Your task to perform on an android device: toggle priority inbox in the gmail app Image 0: 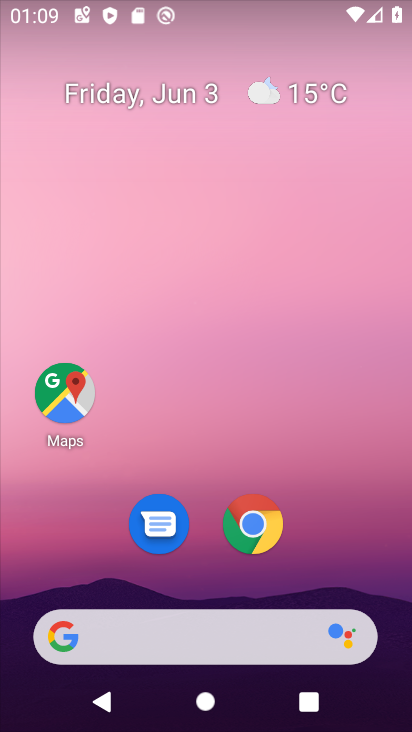
Step 0: drag from (334, 541) to (316, 25)
Your task to perform on an android device: toggle priority inbox in the gmail app Image 1: 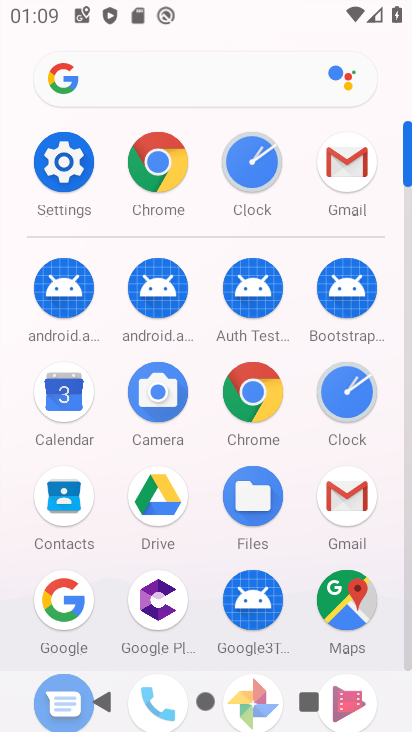
Step 1: click (341, 171)
Your task to perform on an android device: toggle priority inbox in the gmail app Image 2: 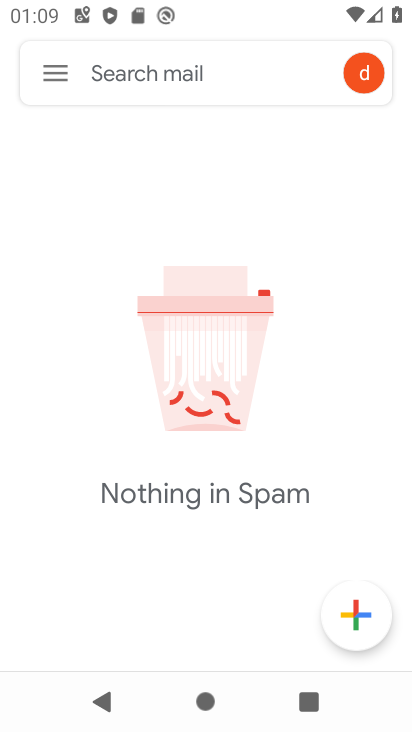
Step 2: click (66, 77)
Your task to perform on an android device: toggle priority inbox in the gmail app Image 3: 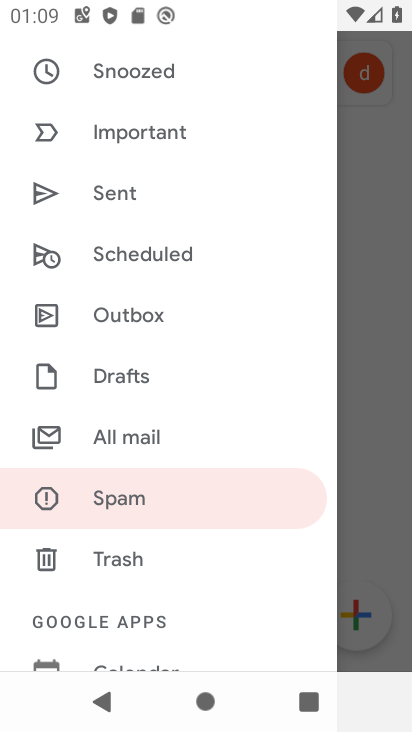
Step 3: drag from (167, 537) to (239, 65)
Your task to perform on an android device: toggle priority inbox in the gmail app Image 4: 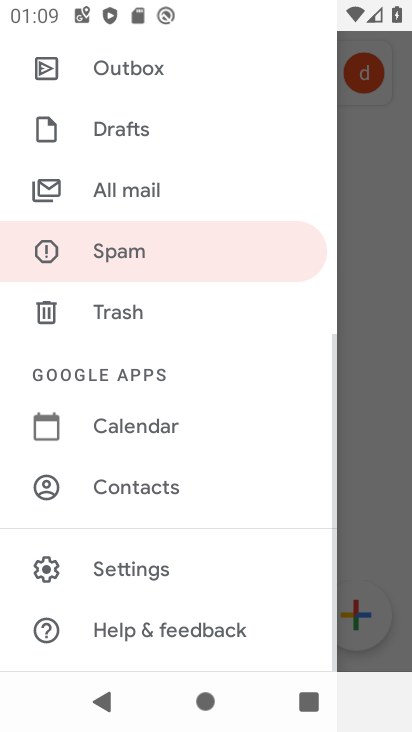
Step 4: click (223, 552)
Your task to perform on an android device: toggle priority inbox in the gmail app Image 5: 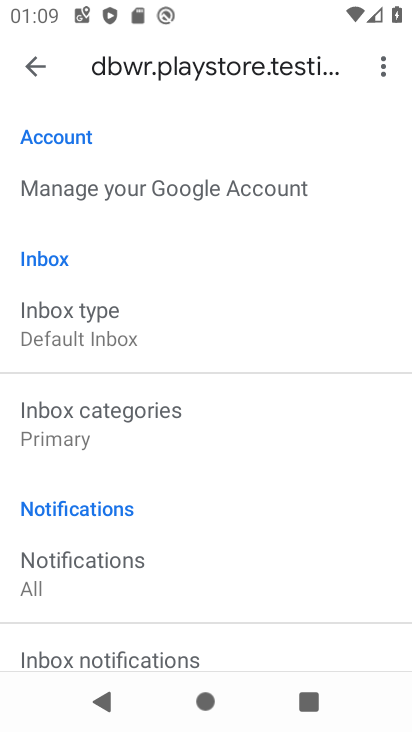
Step 5: click (62, 325)
Your task to perform on an android device: toggle priority inbox in the gmail app Image 6: 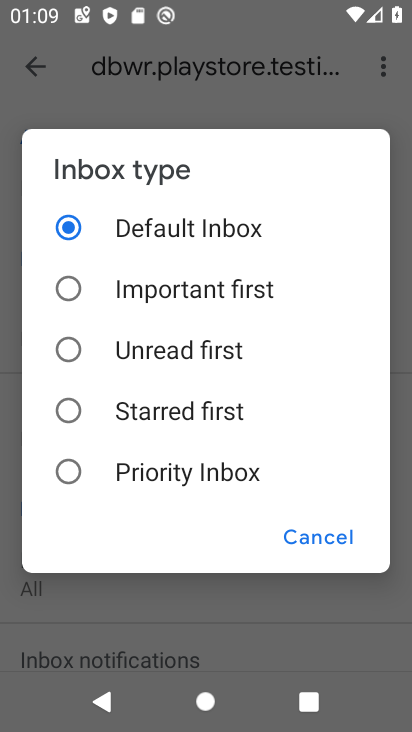
Step 6: click (73, 452)
Your task to perform on an android device: toggle priority inbox in the gmail app Image 7: 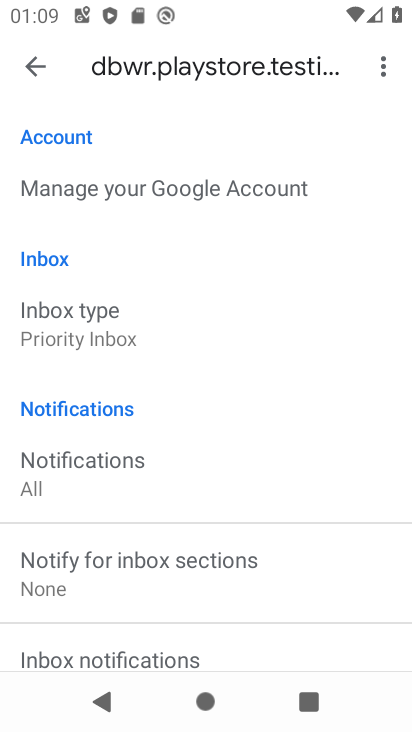
Step 7: task complete